Your task to perform on an android device: move an email to a new category in the gmail app Image 0: 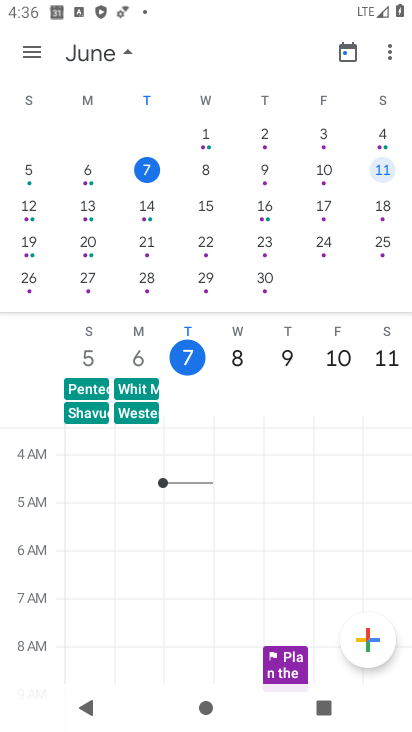
Step 0: press home button
Your task to perform on an android device: move an email to a new category in the gmail app Image 1: 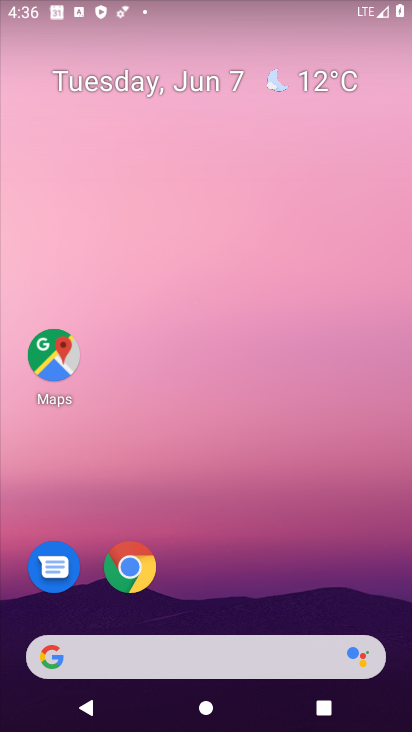
Step 1: drag from (299, 671) to (299, 9)
Your task to perform on an android device: move an email to a new category in the gmail app Image 2: 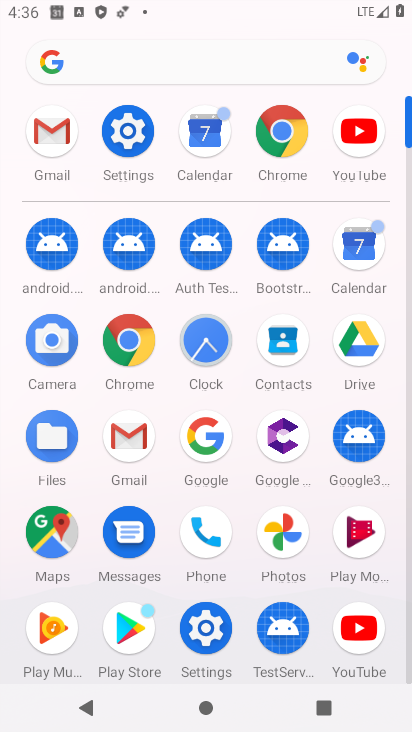
Step 2: click (124, 436)
Your task to perform on an android device: move an email to a new category in the gmail app Image 3: 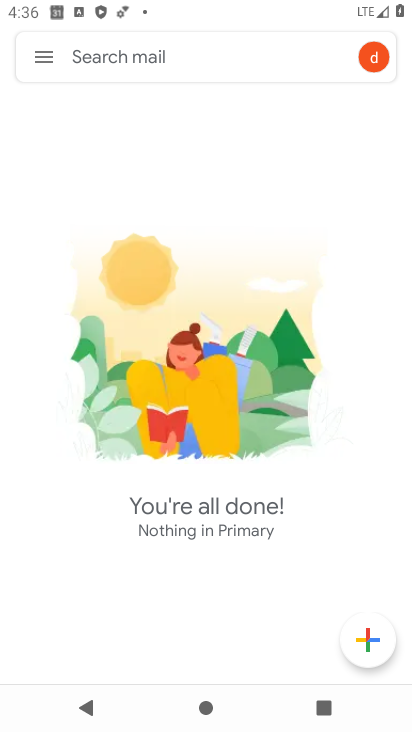
Step 3: task complete